Your task to perform on an android device: turn on priority inbox in the gmail app Image 0: 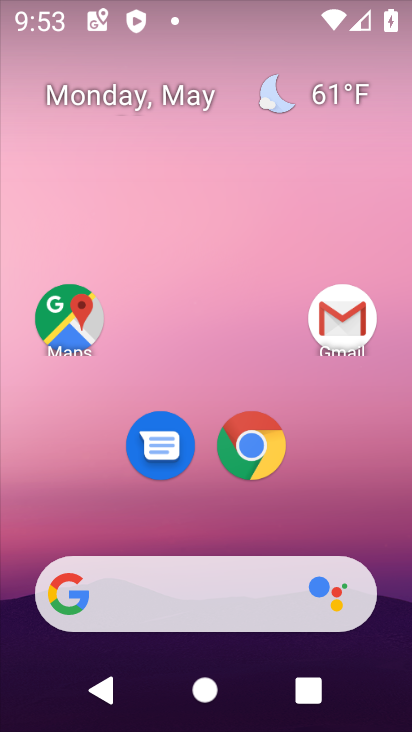
Step 0: drag from (351, 504) to (342, 105)
Your task to perform on an android device: turn on priority inbox in the gmail app Image 1: 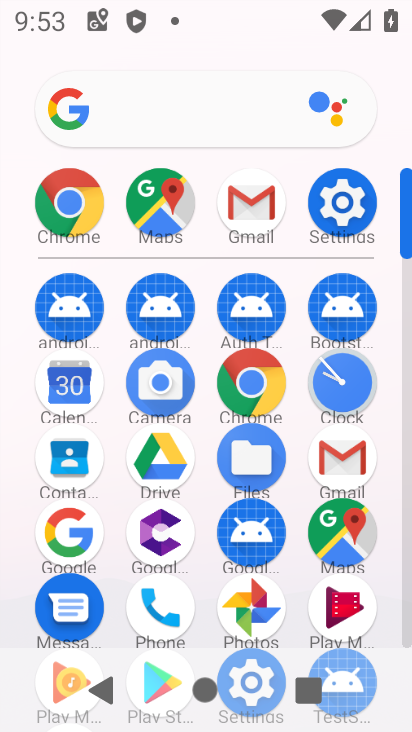
Step 1: click (338, 460)
Your task to perform on an android device: turn on priority inbox in the gmail app Image 2: 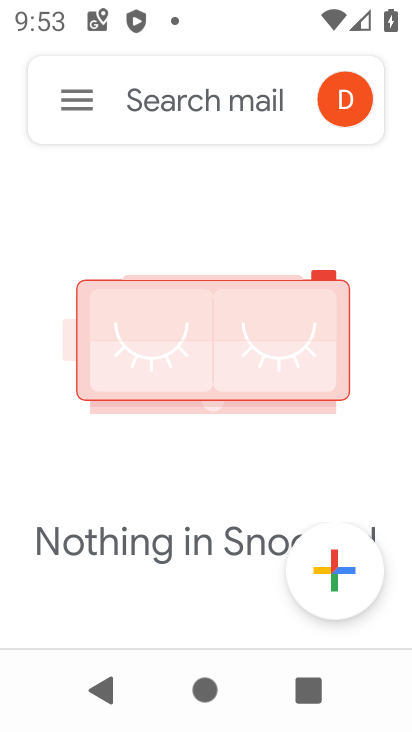
Step 2: click (86, 107)
Your task to perform on an android device: turn on priority inbox in the gmail app Image 3: 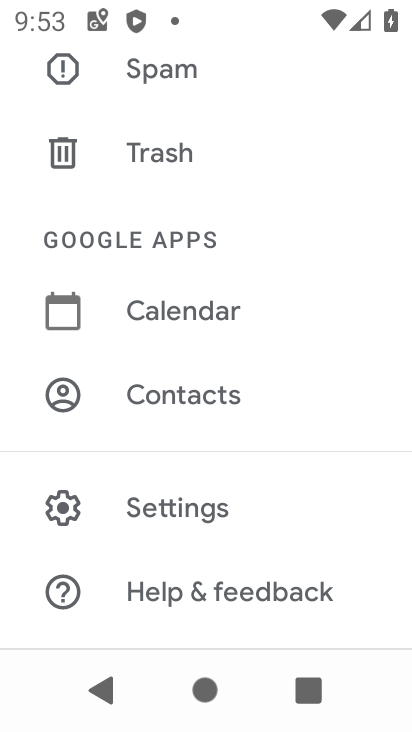
Step 3: drag from (309, 215) to (326, 344)
Your task to perform on an android device: turn on priority inbox in the gmail app Image 4: 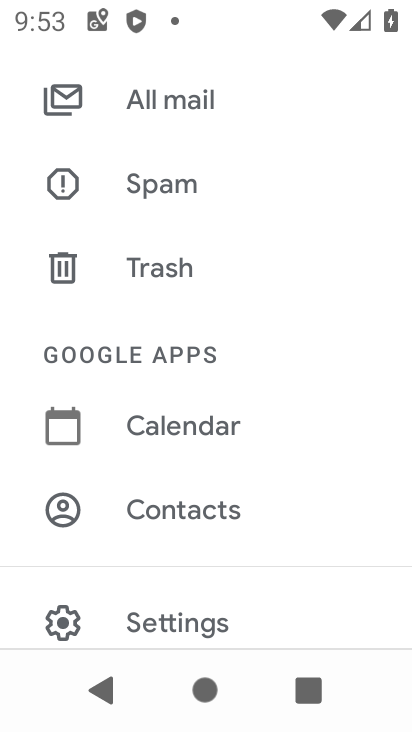
Step 4: drag from (325, 168) to (346, 369)
Your task to perform on an android device: turn on priority inbox in the gmail app Image 5: 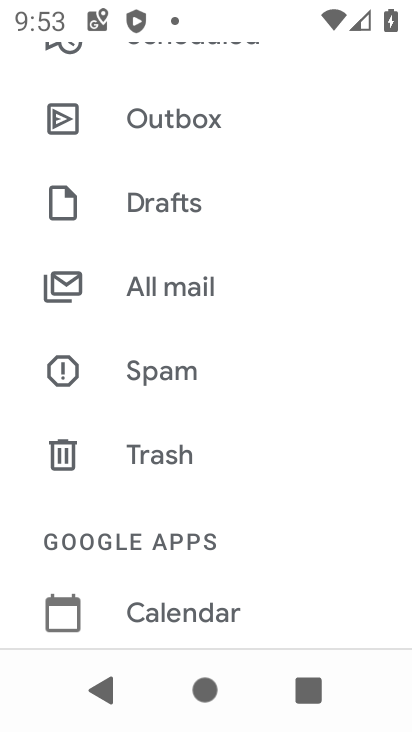
Step 5: drag from (321, 151) to (334, 302)
Your task to perform on an android device: turn on priority inbox in the gmail app Image 6: 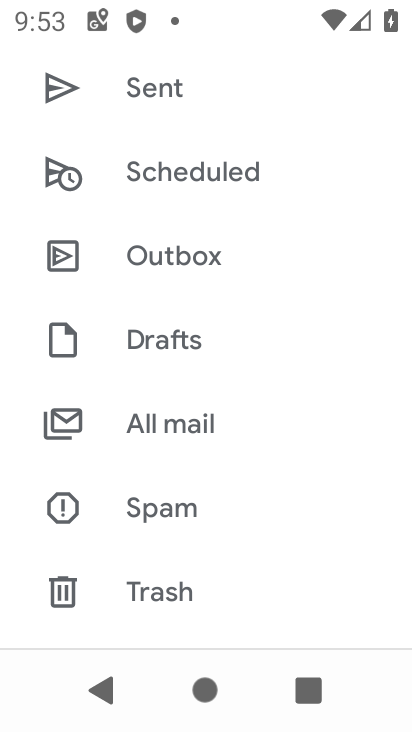
Step 6: drag from (333, 218) to (339, 338)
Your task to perform on an android device: turn on priority inbox in the gmail app Image 7: 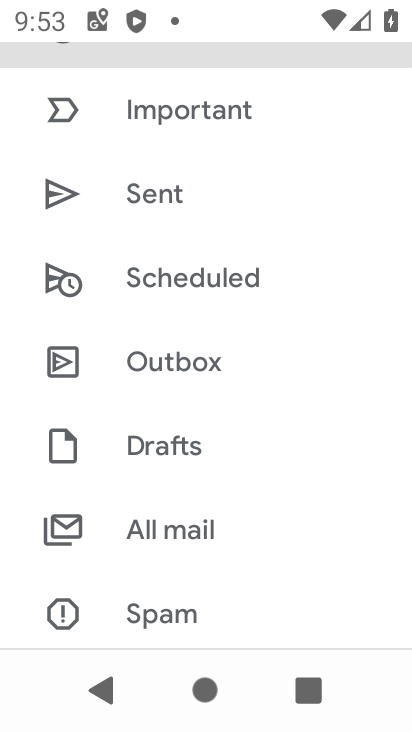
Step 7: drag from (322, 161) to (351, 356)
Your task to perform on an android device: turn on priority inbox in the gmail app Image 8: 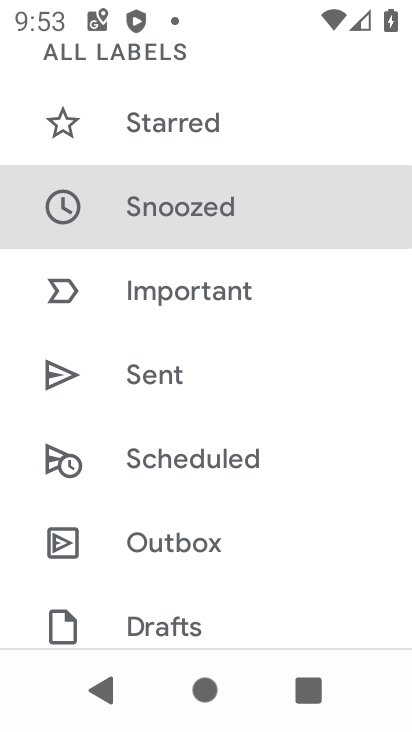
Step 8: drag from (314, 112) to (338, 279)
Your task to perform on an android device: turn on priority inbox in the gmail app Image 9: 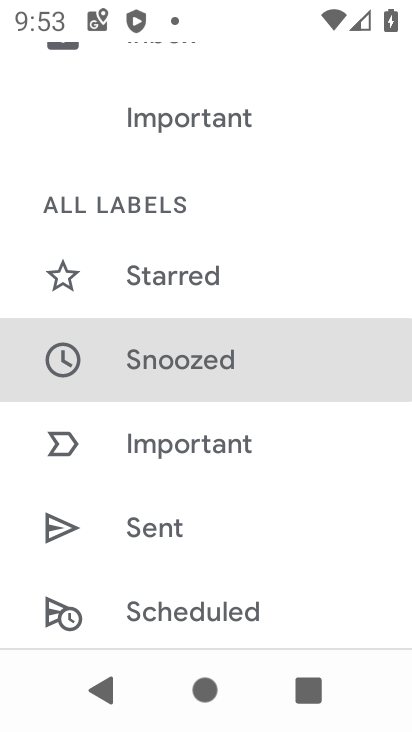
Step 9: drag from (320, 129) to (330, 294)
Your task to perform on an android device: turn on priority inbox in the gmail app Image 10: 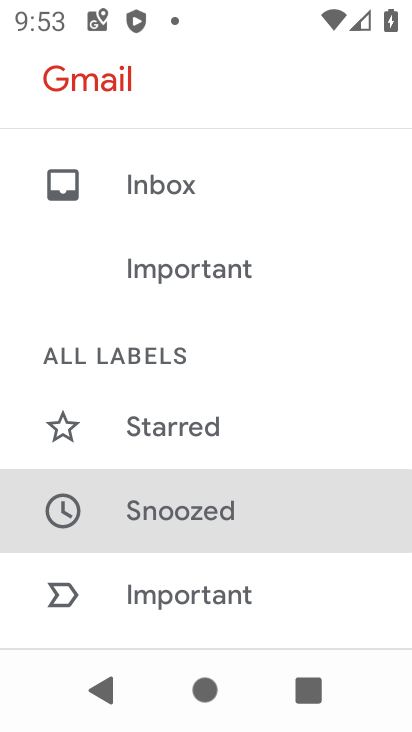
Step 10: drag from (334, 330) to (325, 80)
Your task to perform on an android device: turn on priority inbox in the gmail app Image 11: 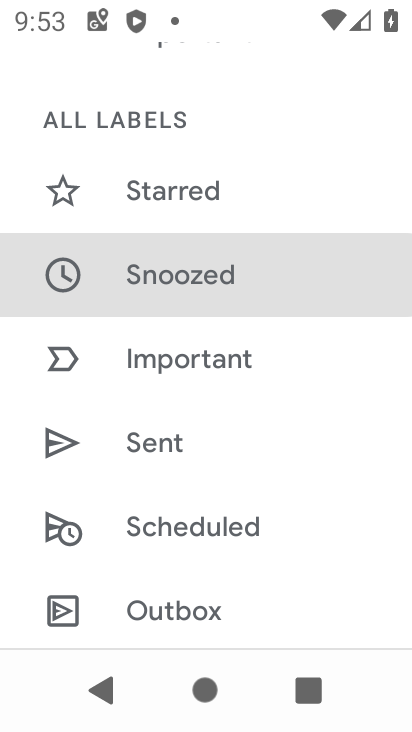
Step 11: drag from (374, 413) to (340, 160)
Your task to perform on an android device: turn on priority inbox in the gmail app Image 12: 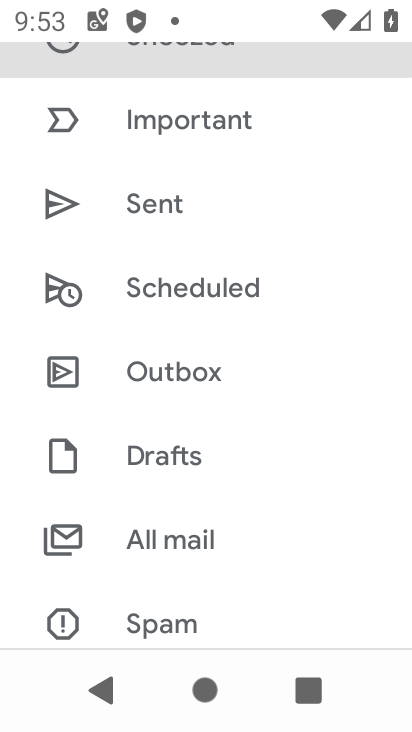
Step 12: drag from (331, 427) to (324, 240)
Your task to perform on an android device: turn on priority inbox in the gmail app Image 13: 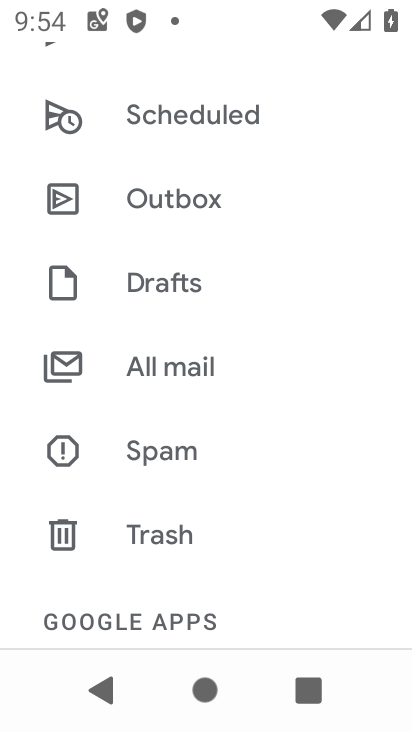
Step 13: drag from (338, 512) to (329, 311)
Your task to perform on an android device: turn on priority inbox in the gmail app Image 14: 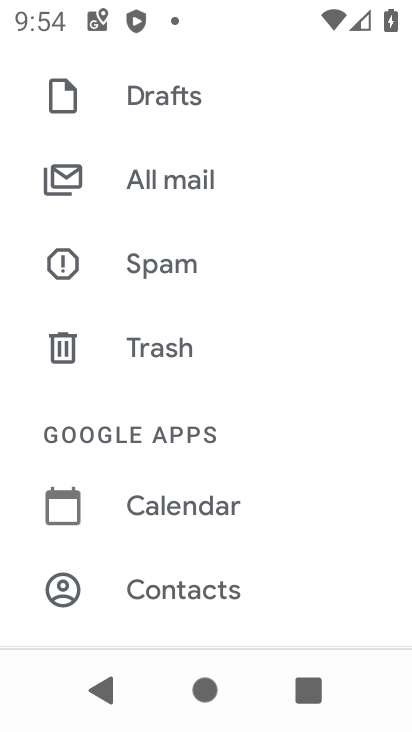
Step 14: drag from (321, 525) to (321, 370)
Your task to perform on an android device: turn on priority inbox in the gmail app Image 15: 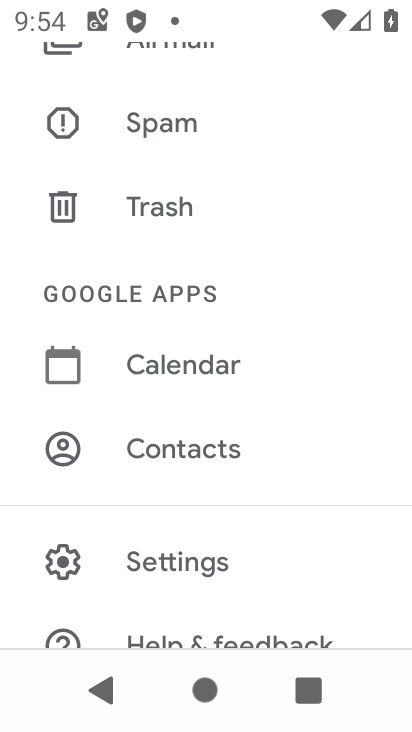
Step 15: click (281, 574)
Your task to perform on an android device: turn on priority inbox in the gmail app Image 16: 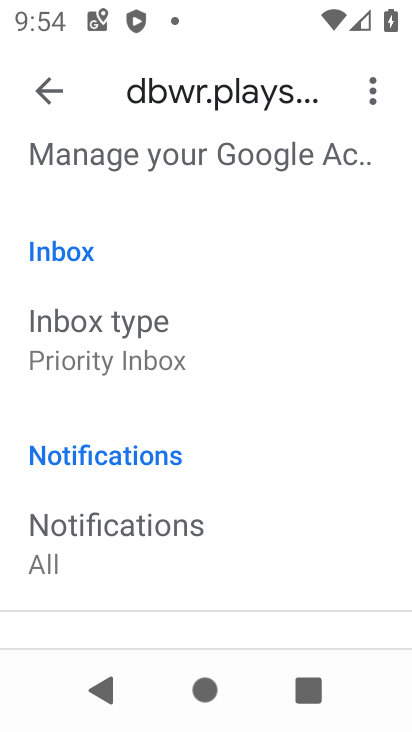
Step 16: task complete